Your task to perform on an android device: Open eBay Image 0: 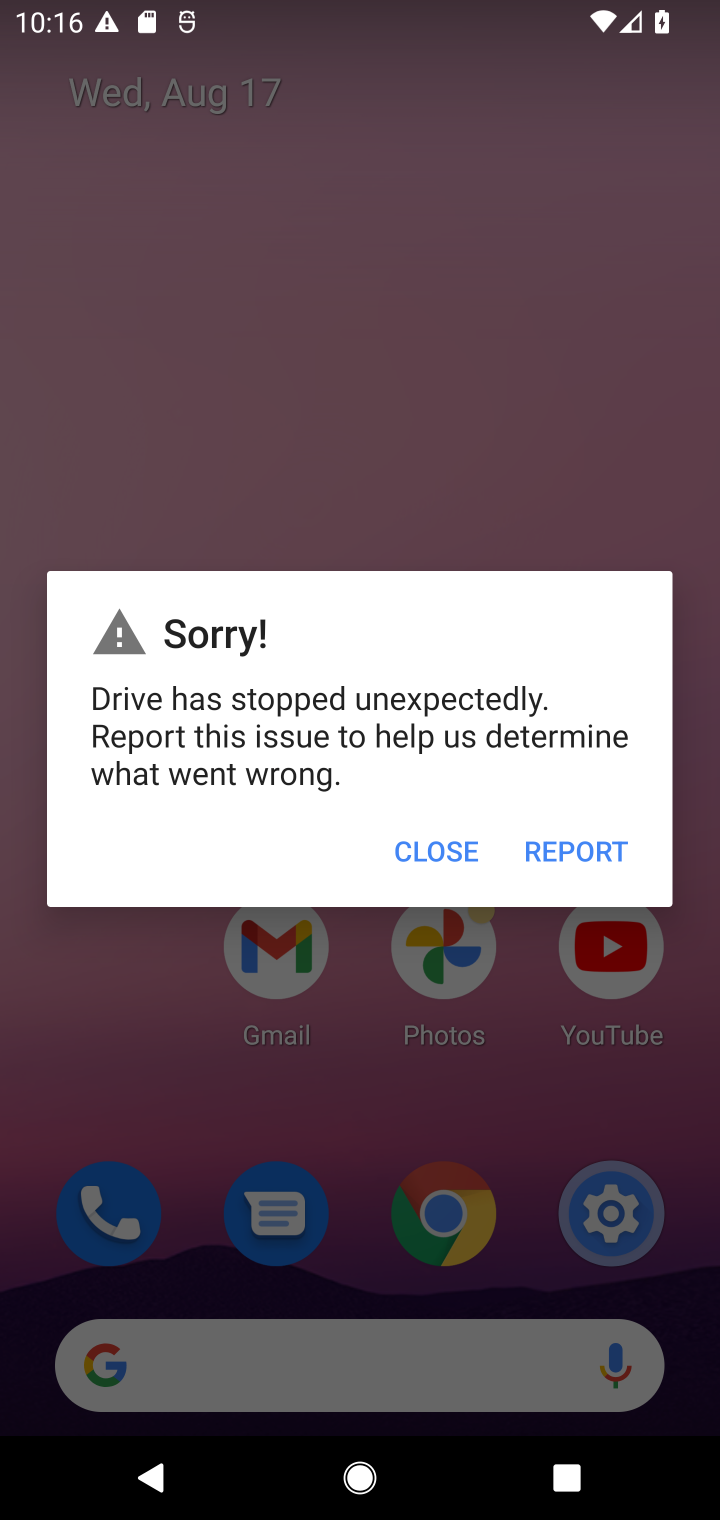
Step 0: click (443, 851)
Your task to perform on an android device: Open eBay Image 1: 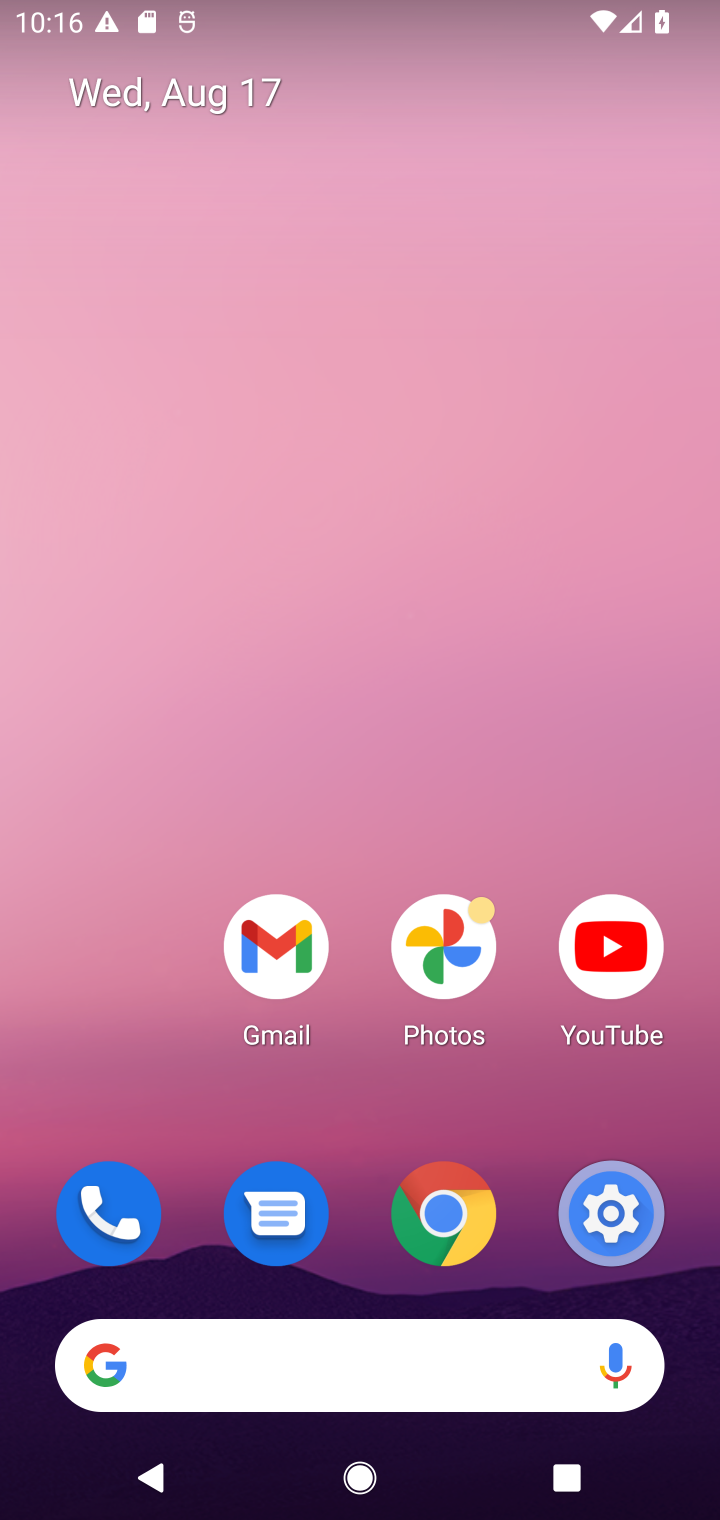
Step 1: drag from (546, 1287) to (342, 32)
Your task to perform on an android device: Open eBay Image 2: 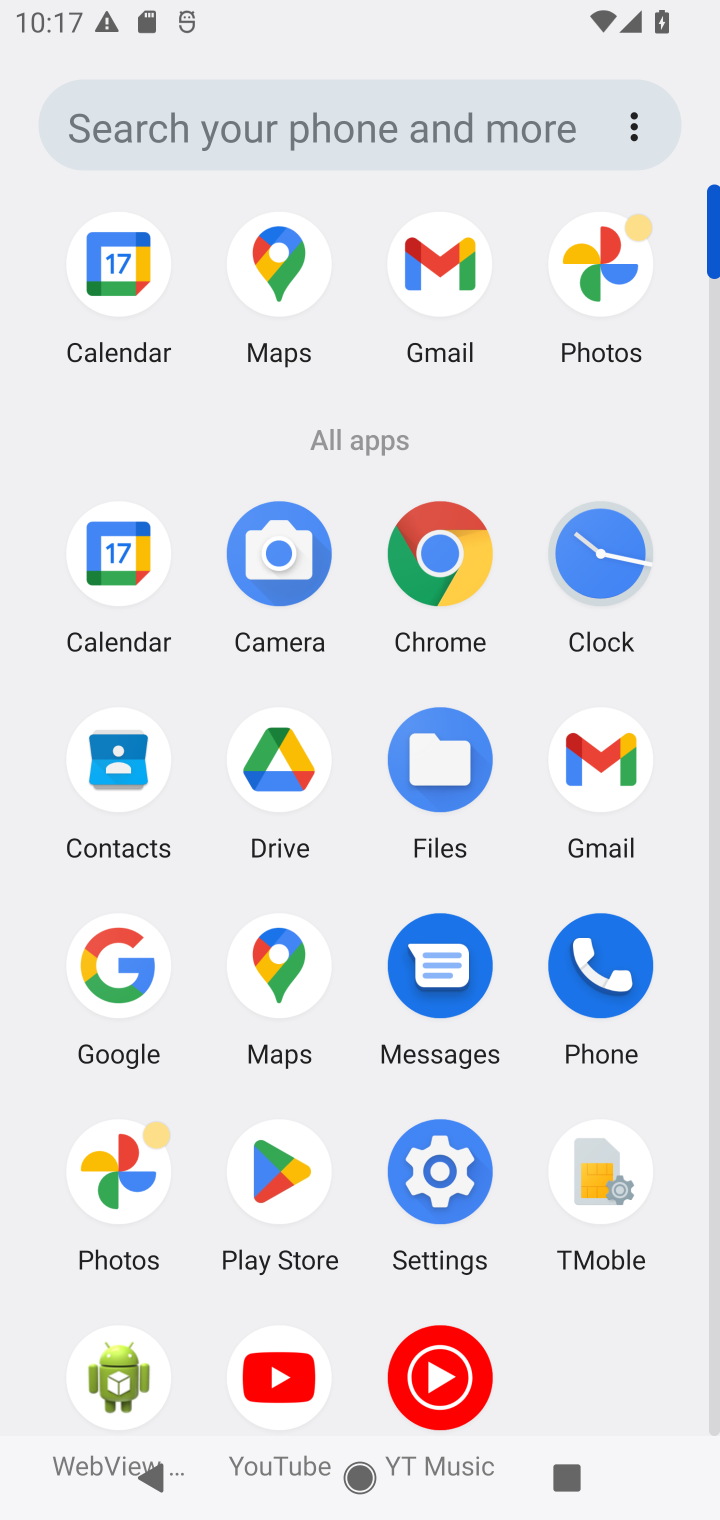
Step 2: click (108, 995)
Your task to perform on an android device: Open eBay Image 3: 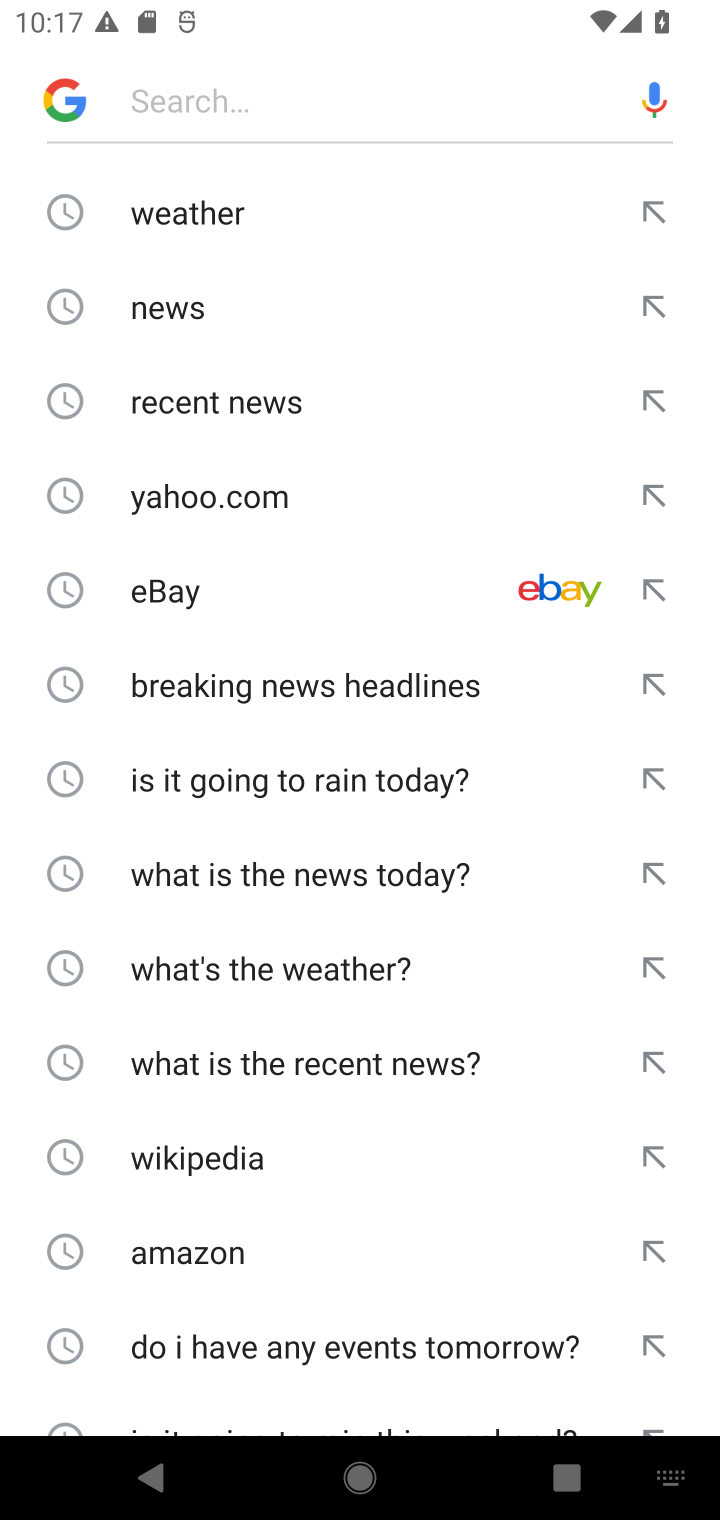
Step 3: click (272, 610)
Your task to perform on an android device: Open eBay Image 4: 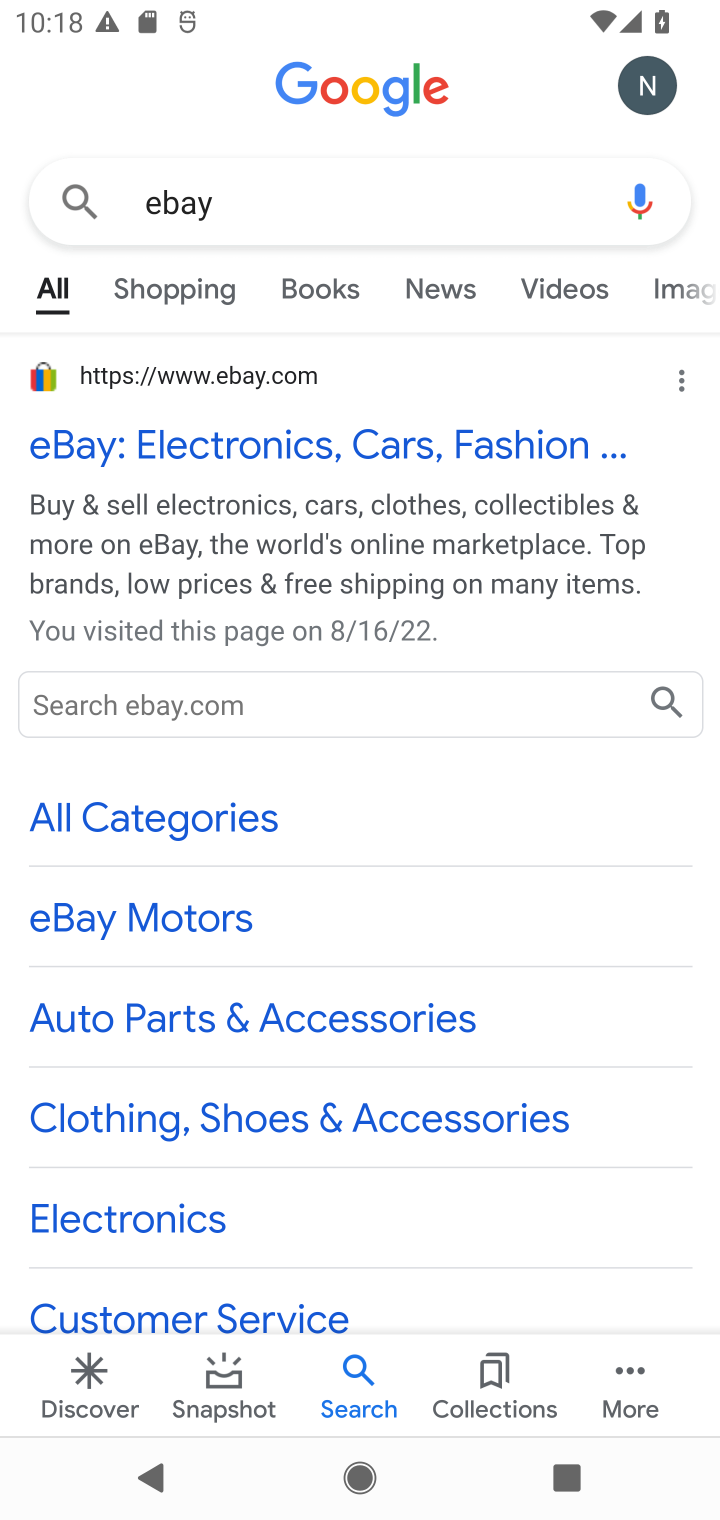
Step 4: task complete